Your task to perform on an android device: Open Chrome and go to the settings page Image 0: 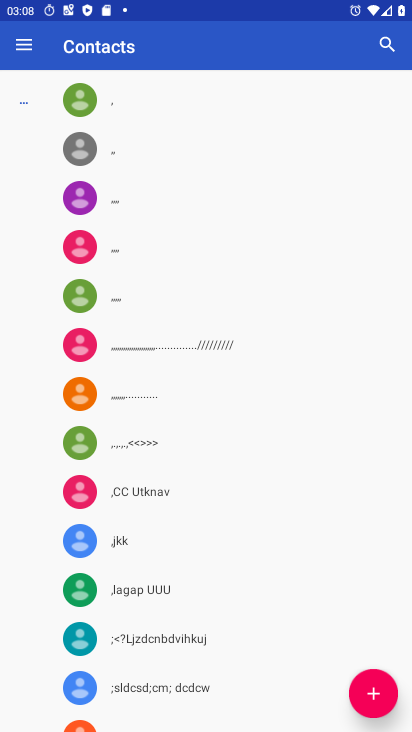
Step 0: press home button
Your task to perform on an android device: Open Chrome and go to the settings page Image 1: 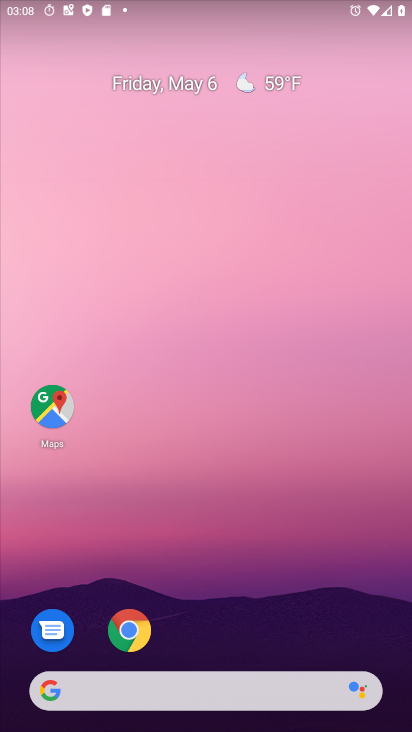
Step 1: click (117, 621)
Your task to perform on an android device: Open Chrome and go to the settings page Image 2: 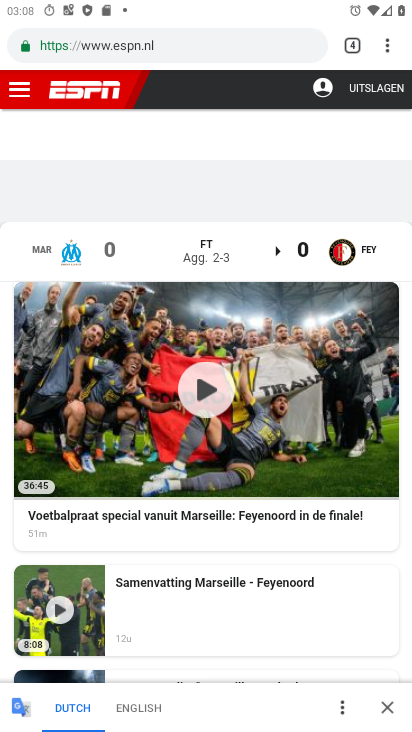
Step 2: click (390, 45)
Your task to perform on an android device: Open Chrome and go to the settings page Image 3: 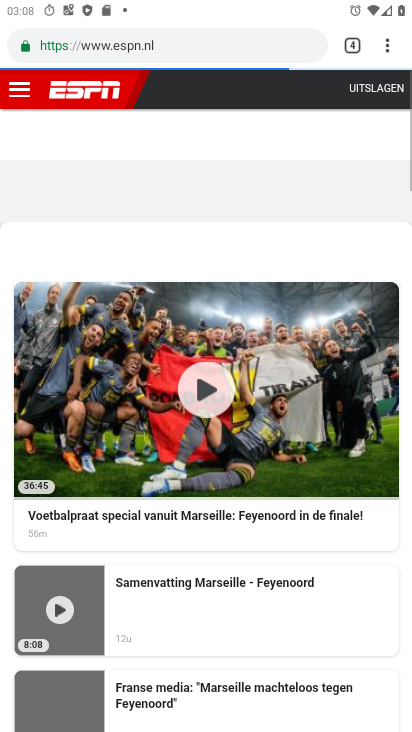
Step 3: click (390, 45)
Your task to perform on an android device: Open Chrome and go to the settings page Image 4: 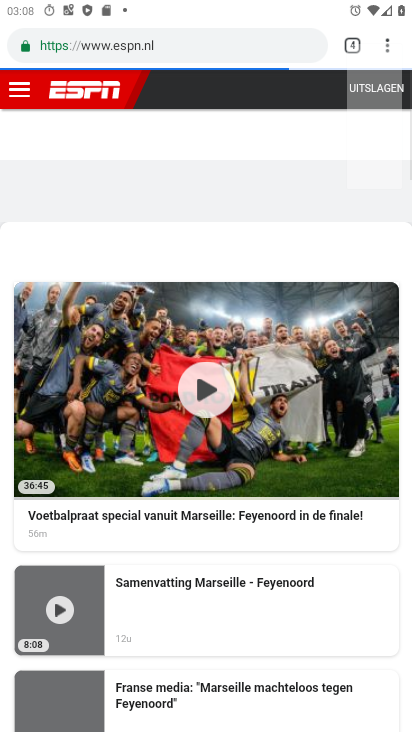
Step 4: drag from (390, 45) to (227, 551)
Your task to perform on an android device: Open Chrome and go to the settings page Image 5: 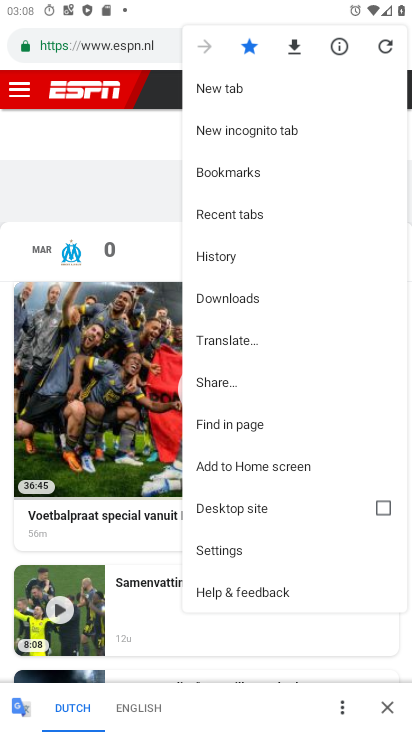
Step 5: click (230, 550)
Your task to perform on an android device: Open Chrome and go to the settings page Image 6: 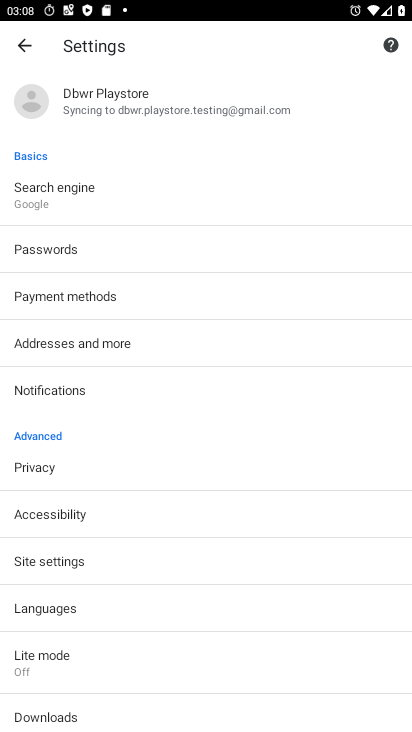
Step 6: task complete